Your task to perform on an android device: Find coffee shops on Maps Image 0: 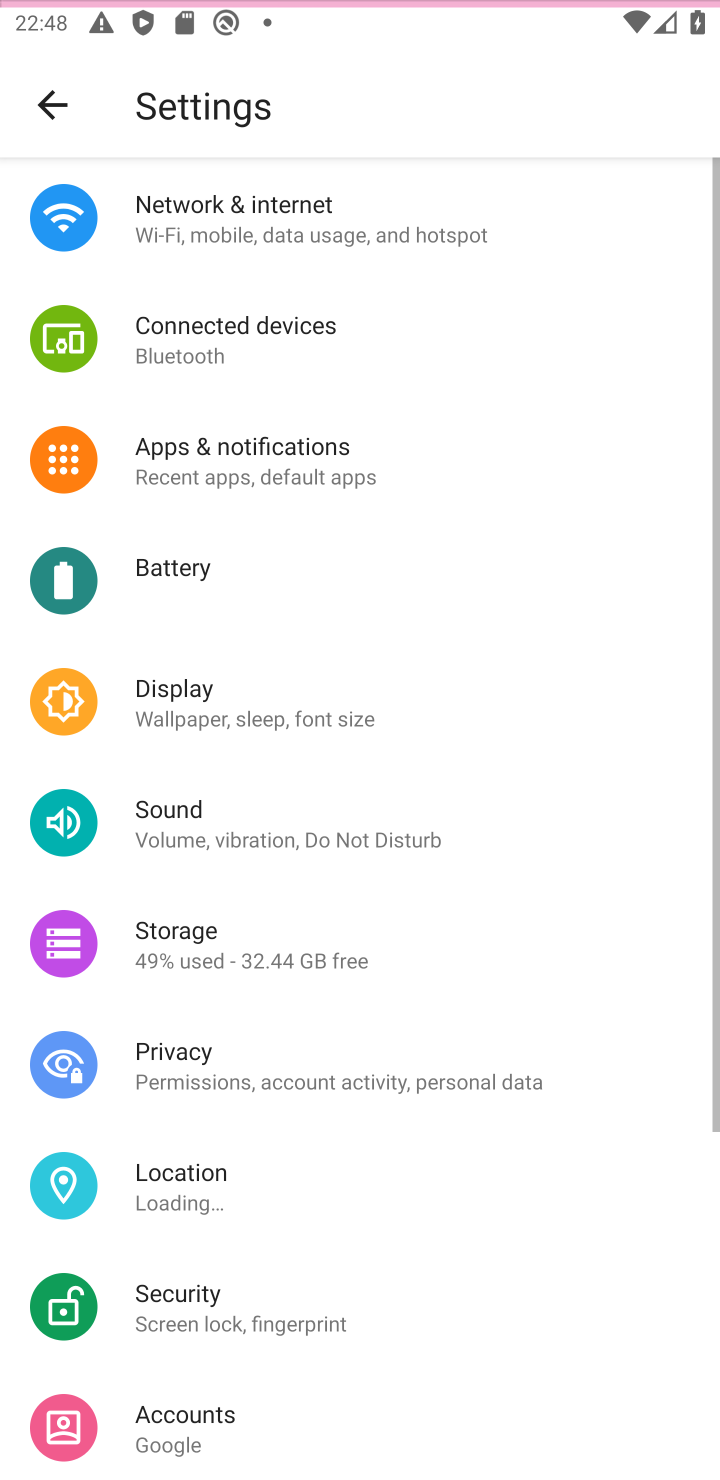
Step 0: press home button
Your task to perform on an android device: Find coffee shops on Maps Image 1: 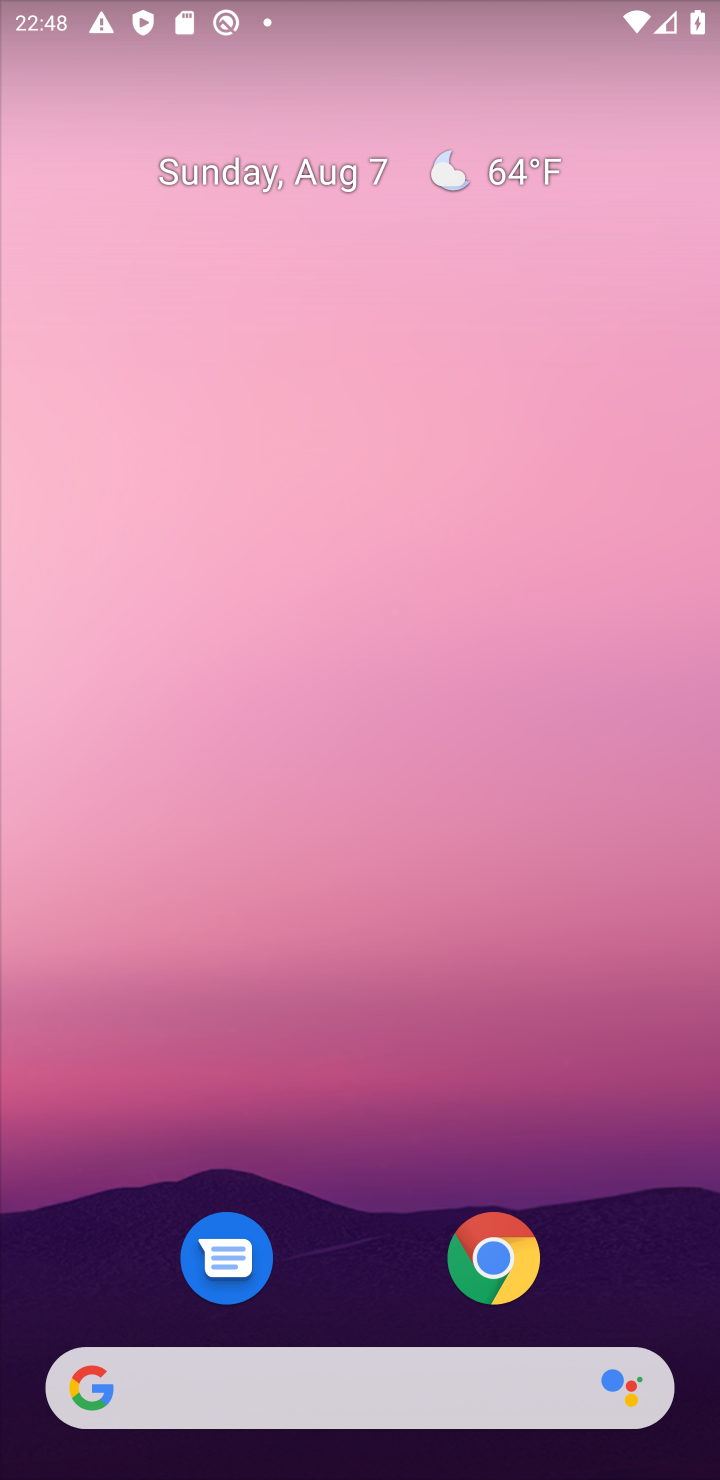
Step 1: press home button
Your task to perform on an android device: Find coffee shops on Maps Image 2: 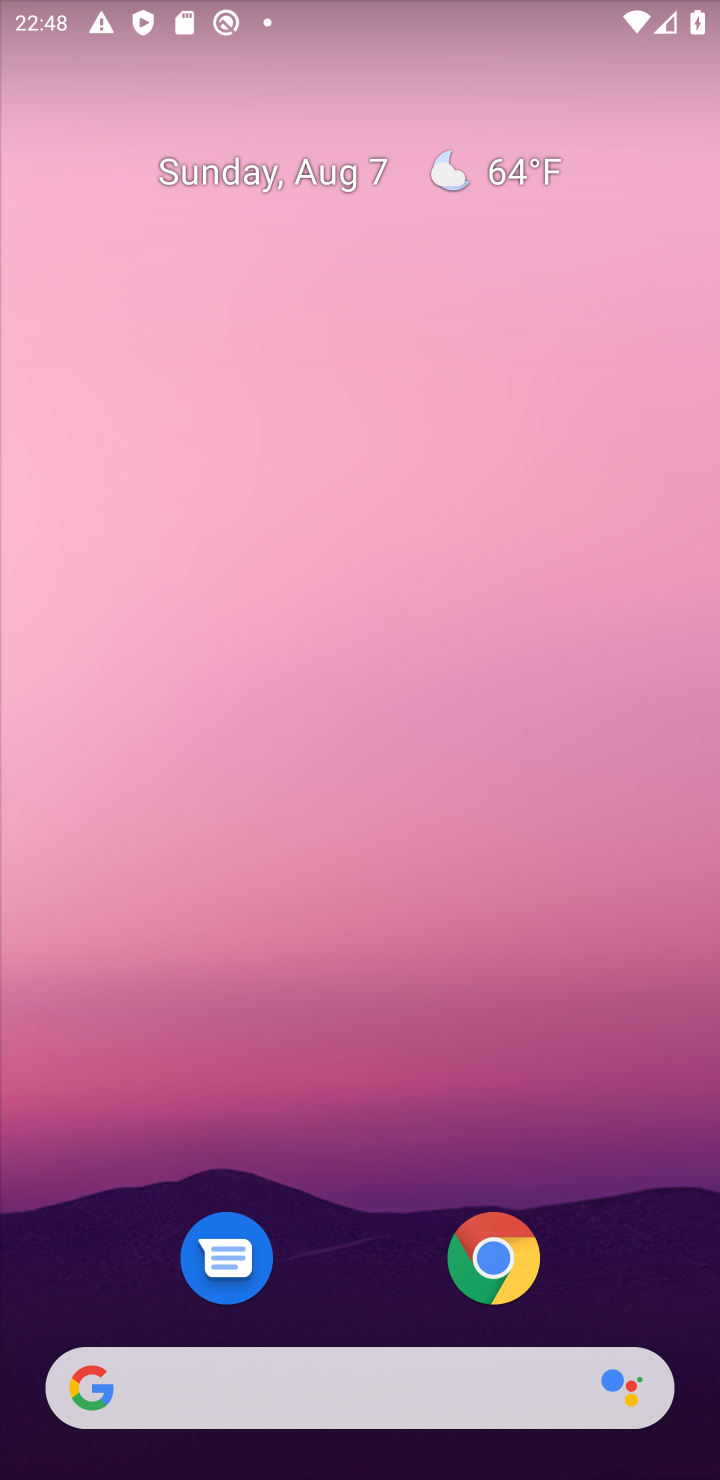
Step 2: click (522, 1271)
Your task to perform on an android device: Find coffee shops on Maps Image 3: 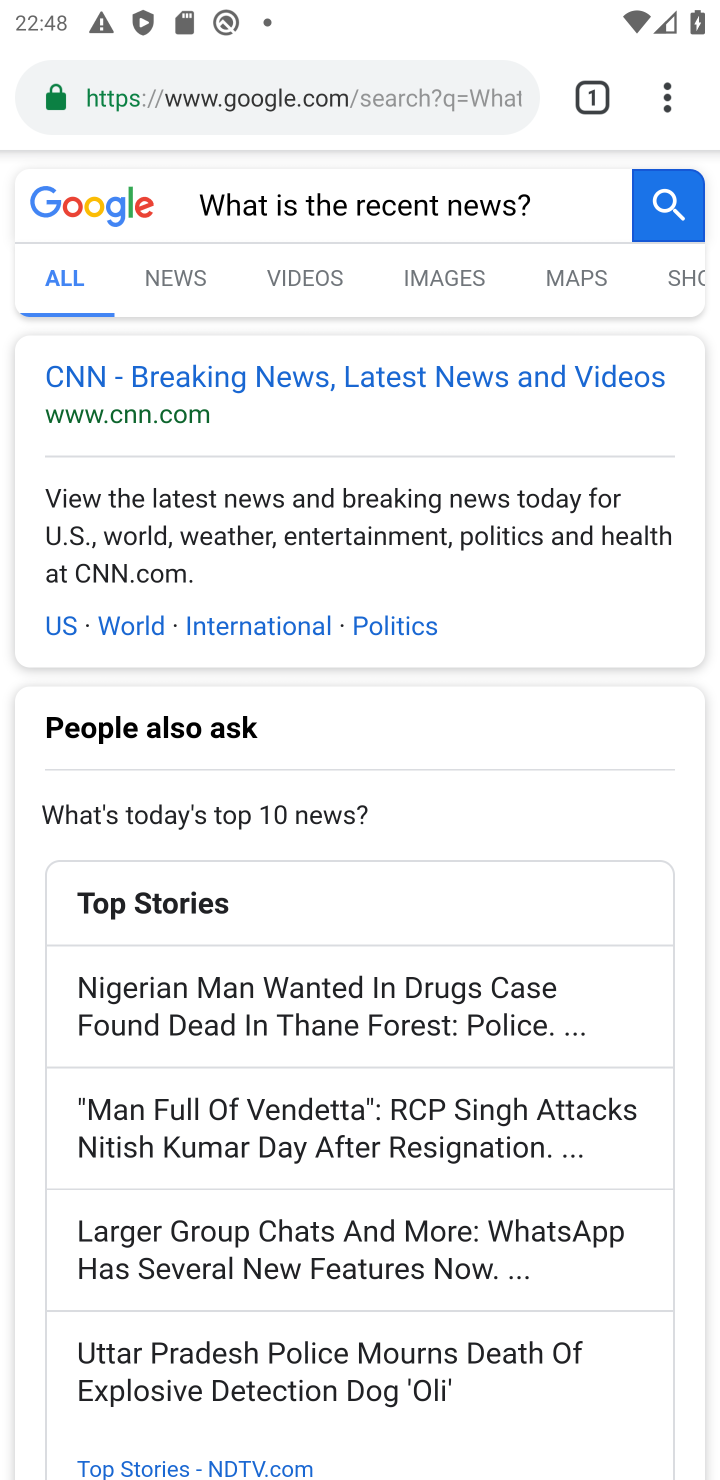
Step 3: press home button
Your task to perform on an android device: Find coffee shops on Maps Image 4: 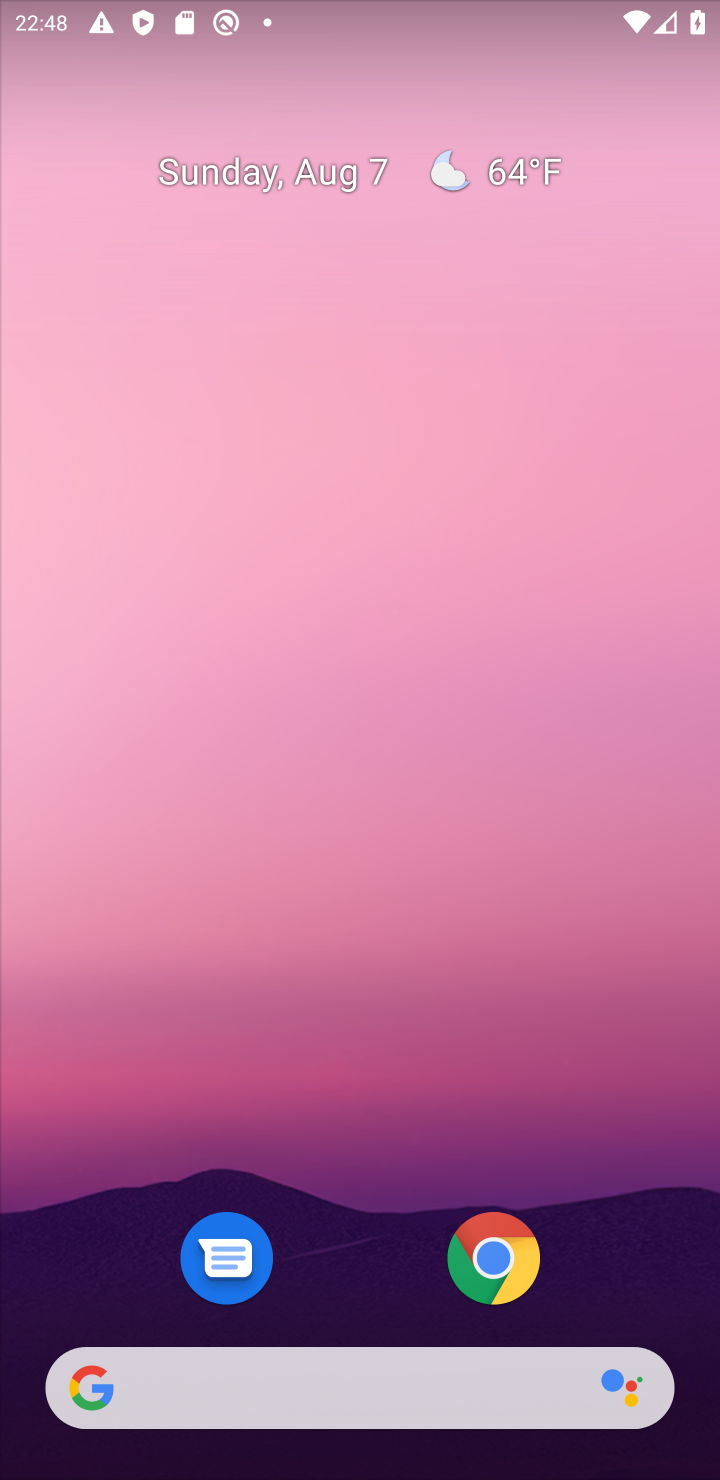
Step 4: drag from (361, 876) to (361, 120)
Your task to perform on an android device: Find coffee shops on Maps Image 5: 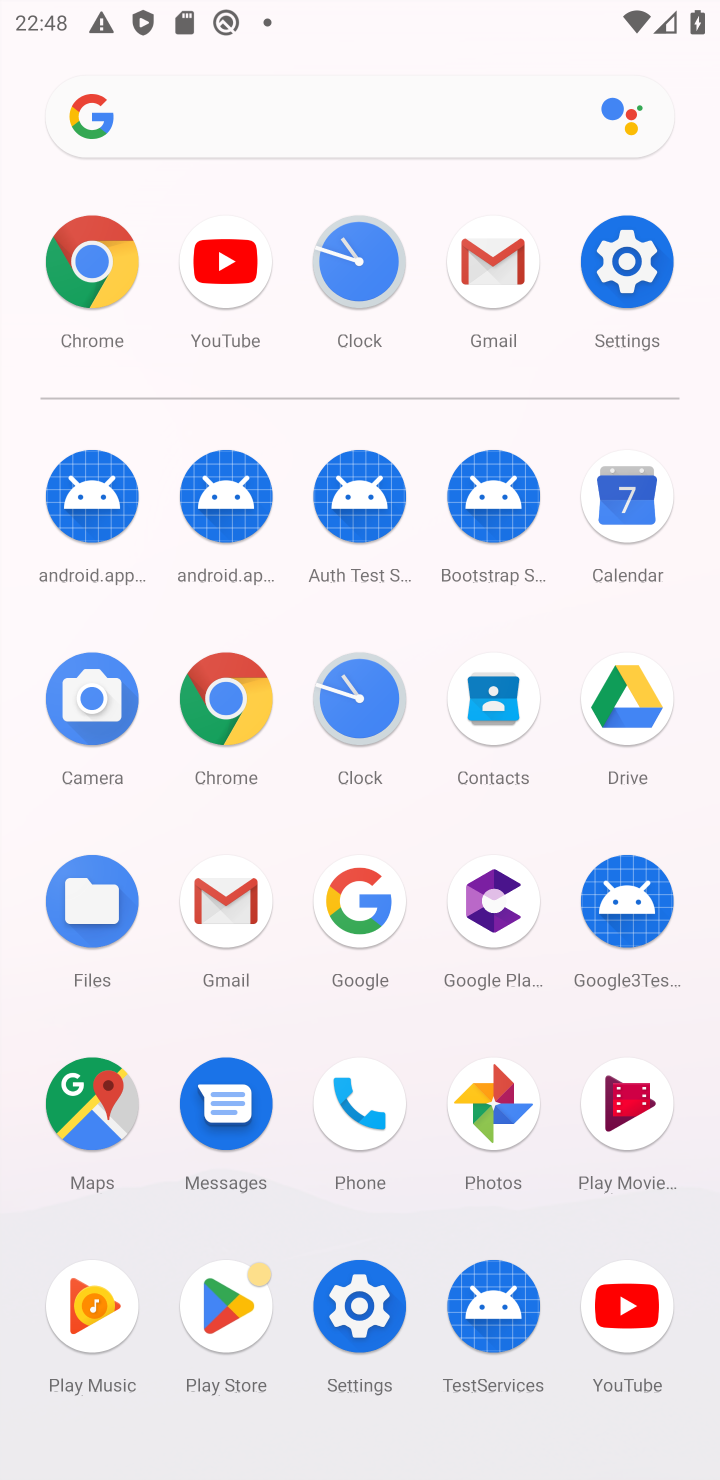
Step 5: click (70, 1100)
Your task to perform on an android device: Find coffee shops on Maps Image 6: 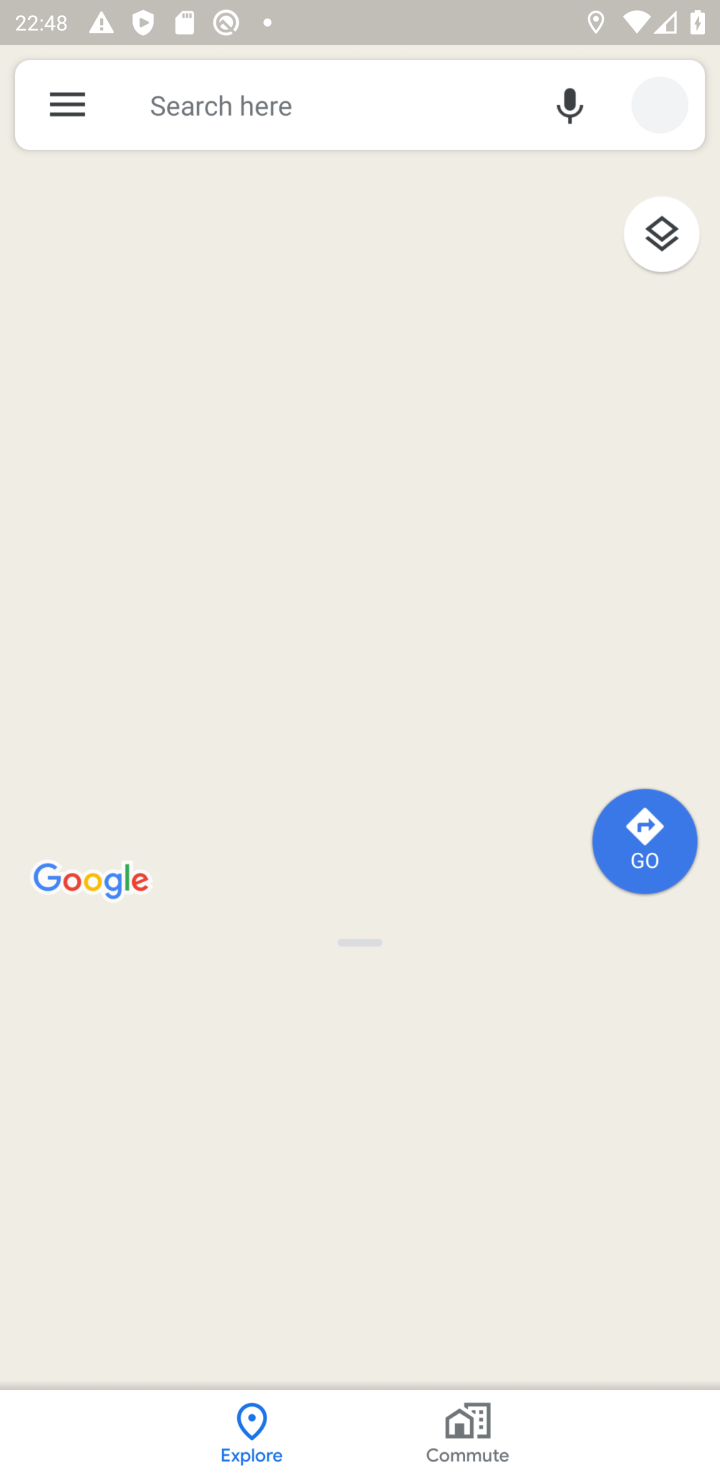
Step 6: click (259, 101)
Your task to perform on an android device: Find coffee shops on Maps Image 7: 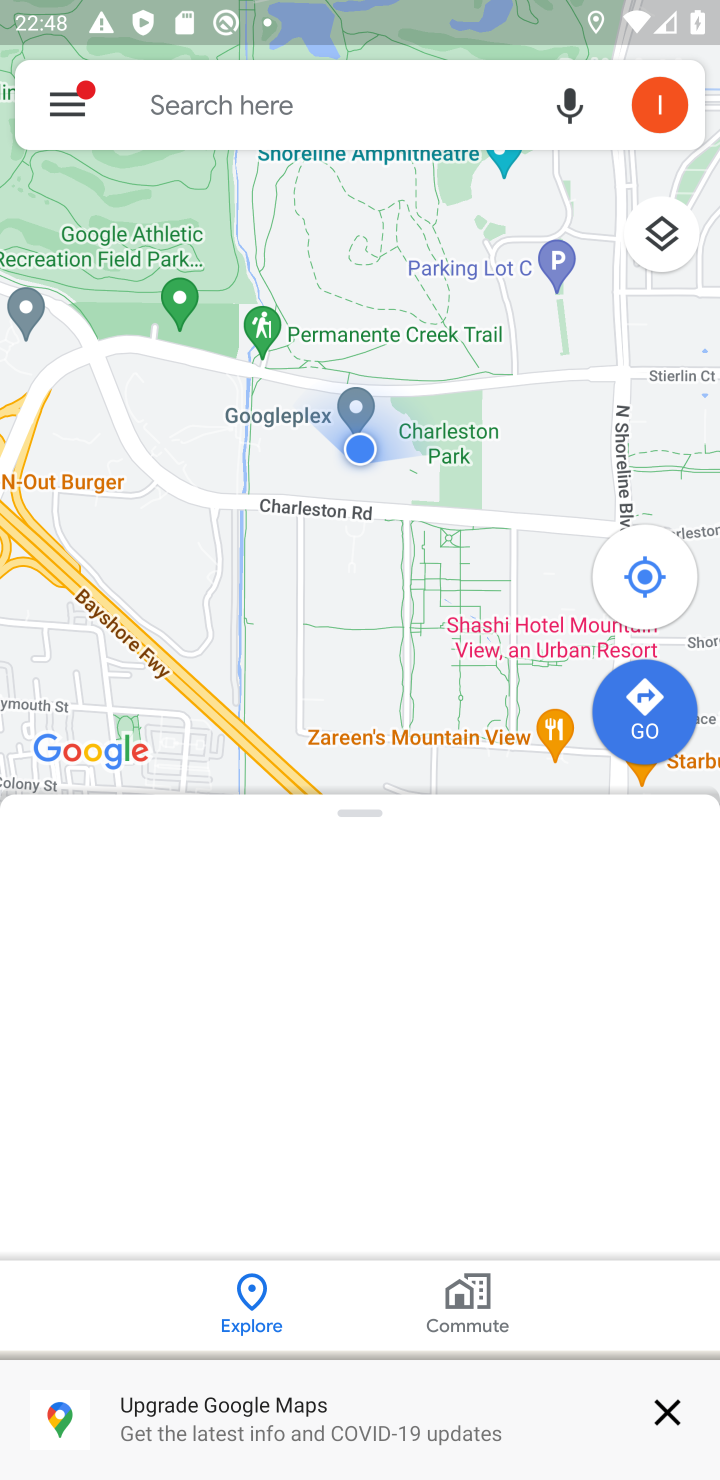
Step 7: type "coffee shops "
Your task to perform on an android device: Find coffee shops on Maps Image 8: 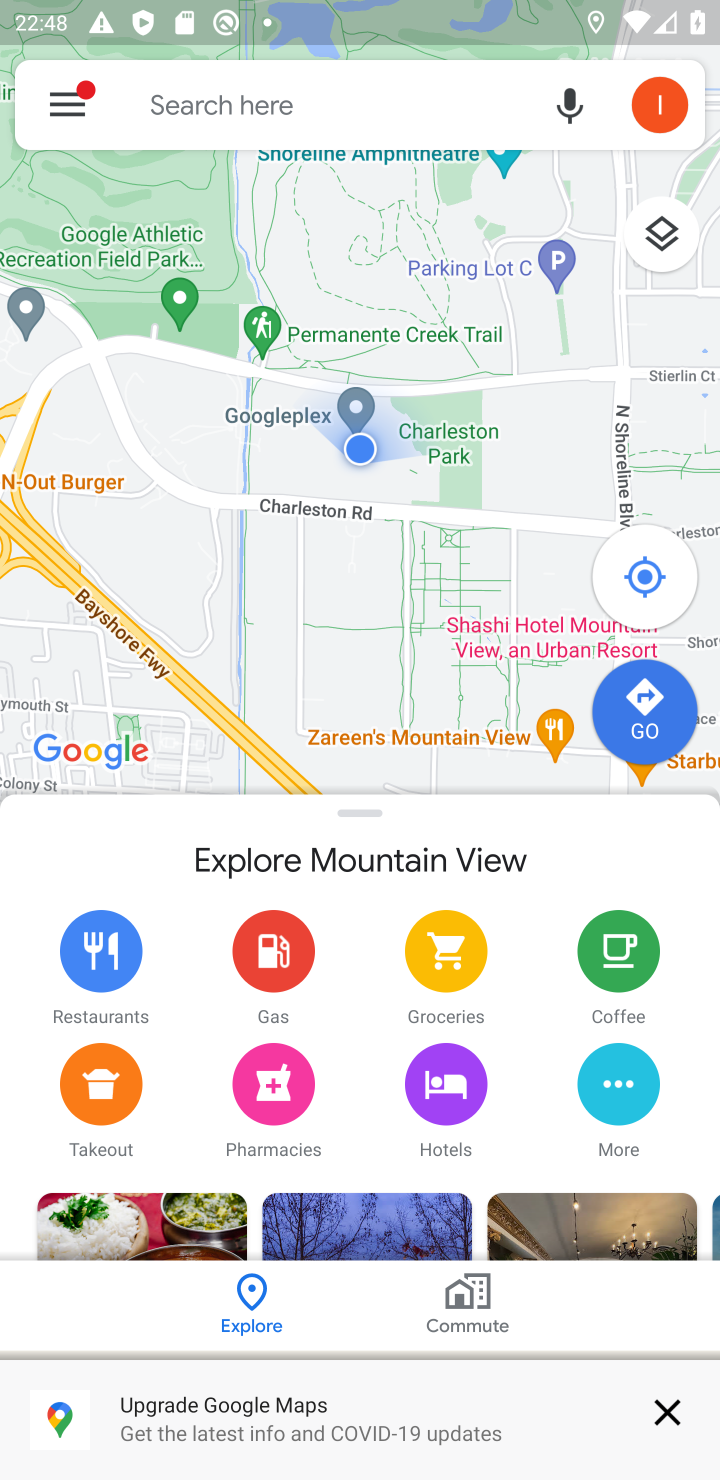
Step 8: click (242, 96)
Your task to perform on an android device: Find coffee shops on Maps Image 9: 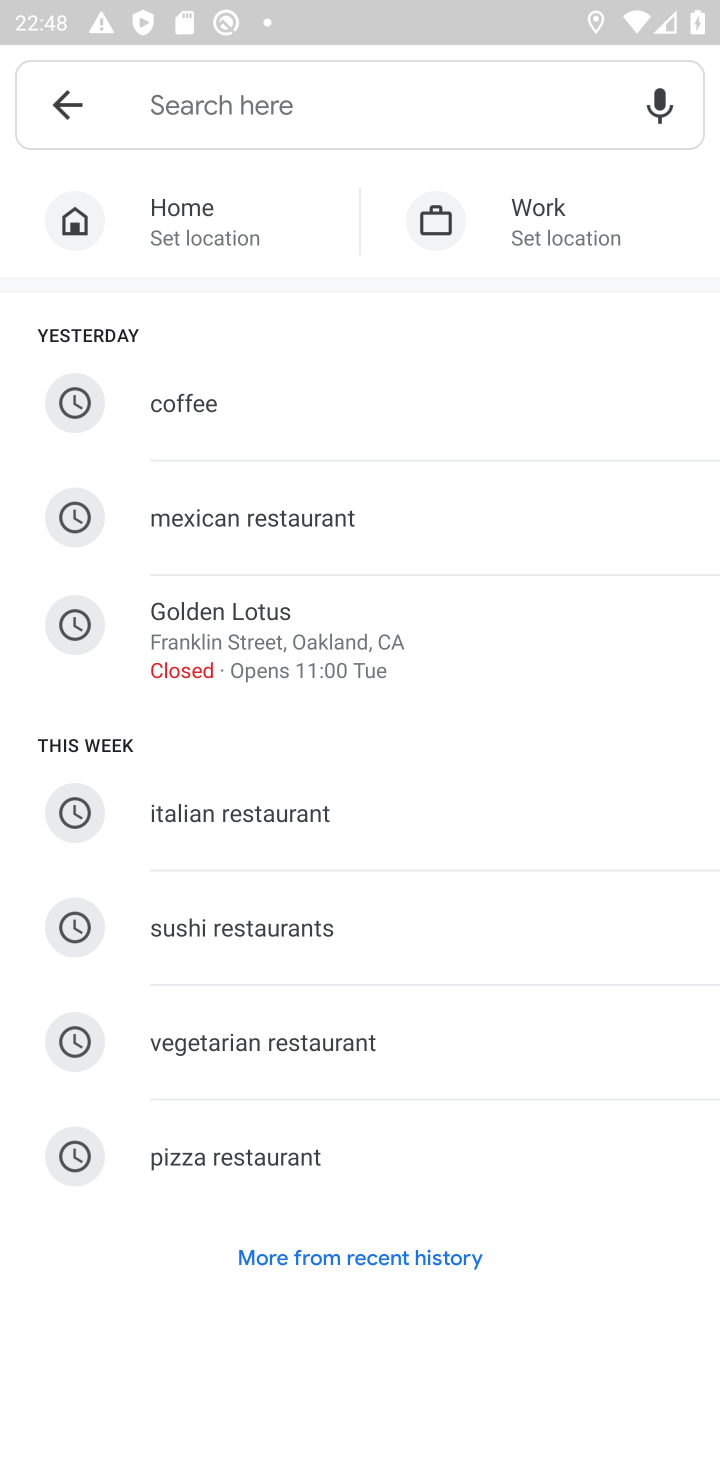
Step 9: type "coffee shops "
Your task to perform on an android device: Find coffee shops on Maps Image 10: 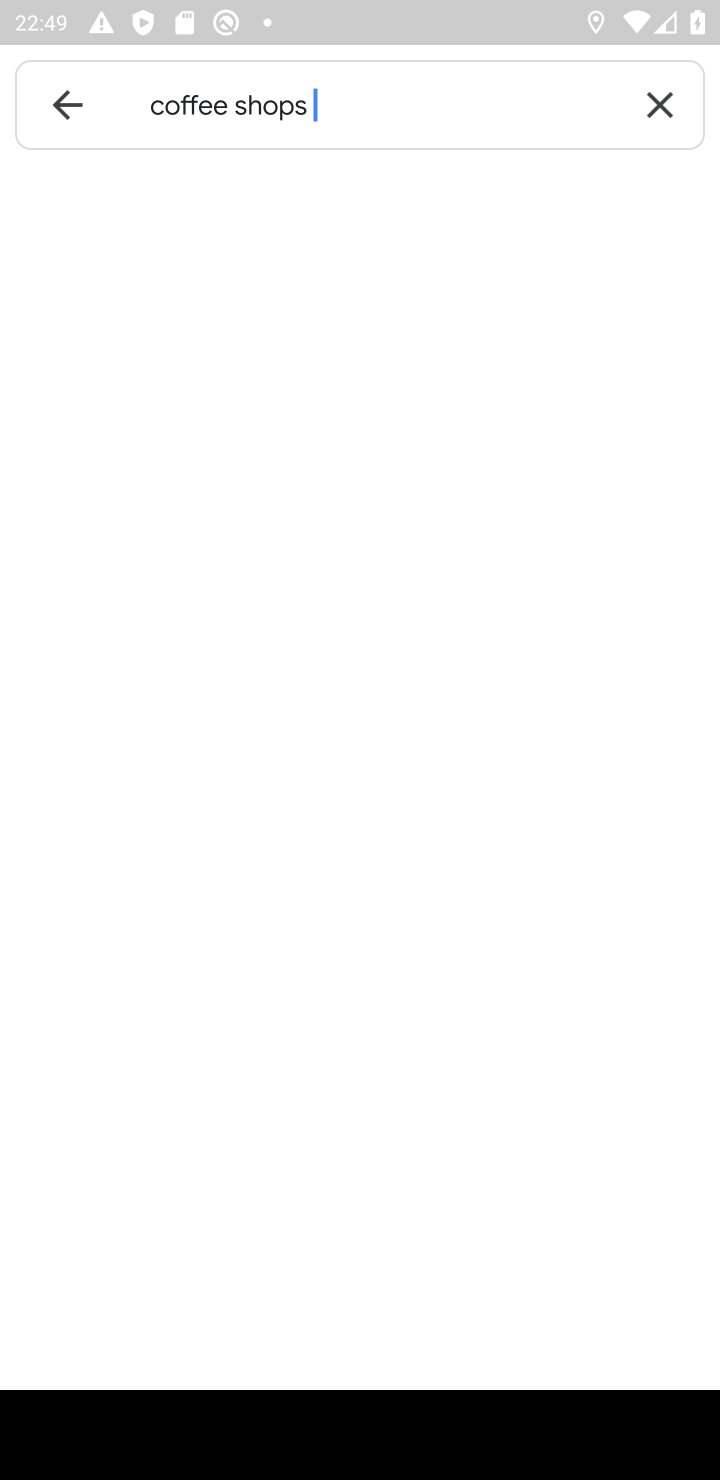
Step 10: type ""
Your task to perform on an android device: Find coffee shops on Maps Image 11: 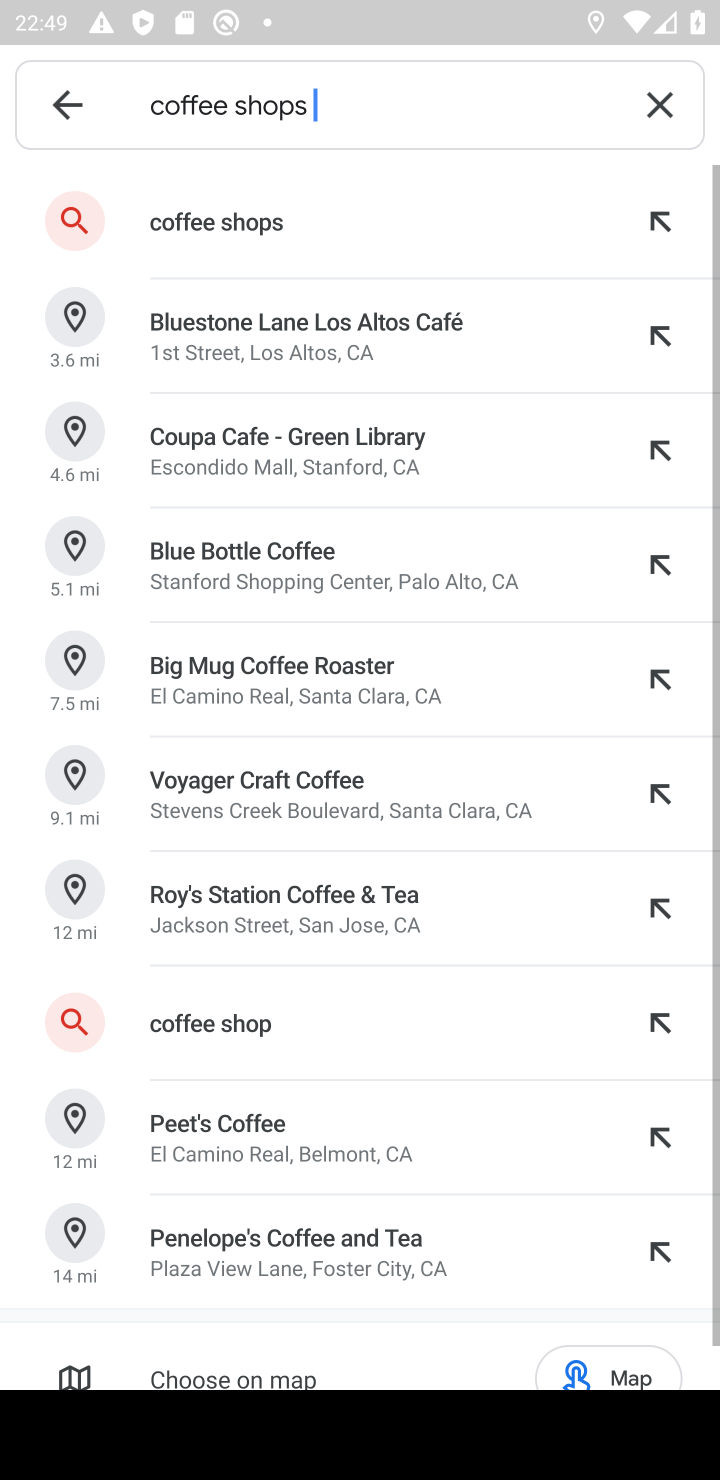
Step 11: click (158, 217)
Your task to perform on an android device: Find coffee shops on Maps Image 12: 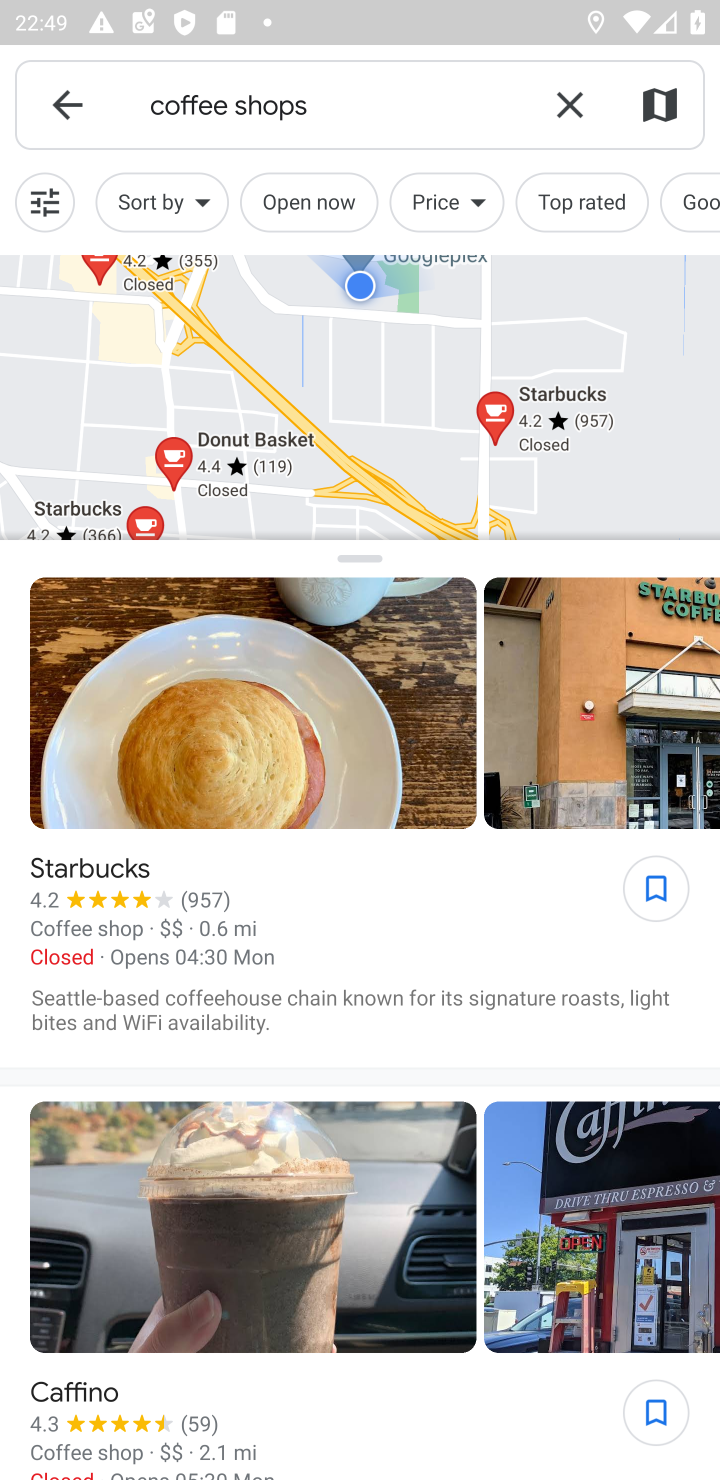
Step 12: task complete